Your task to perform on an android device: Open the map Image 0: 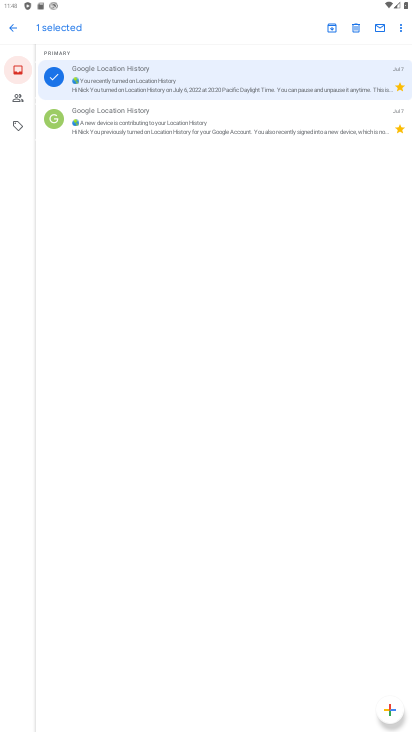
Step 0: press home button
Your task to perform on an android device: Open the map Image 1: 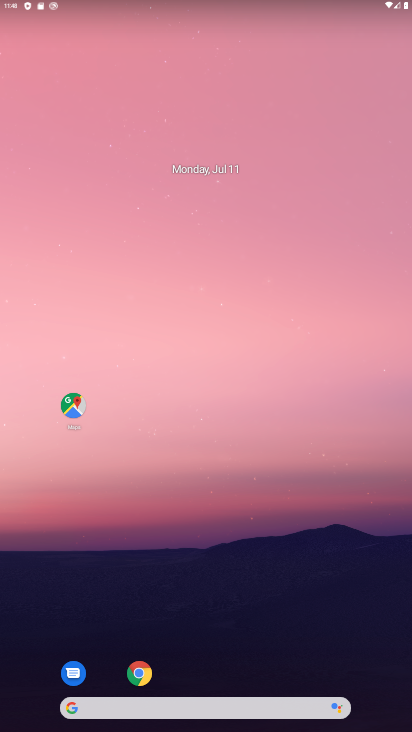
Step 1: click (75, 400)
Your task to perform on an android device: Open the map Image 2: 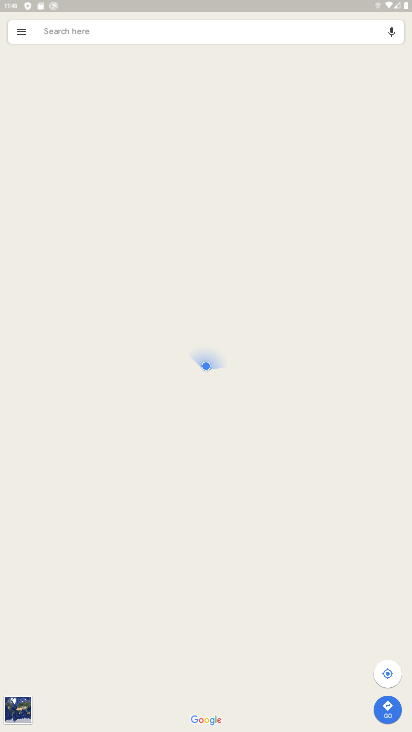
Step 2: task complete